Your task to perform on an android device: Add panasonic triple a to the cart on amazon Image 0: 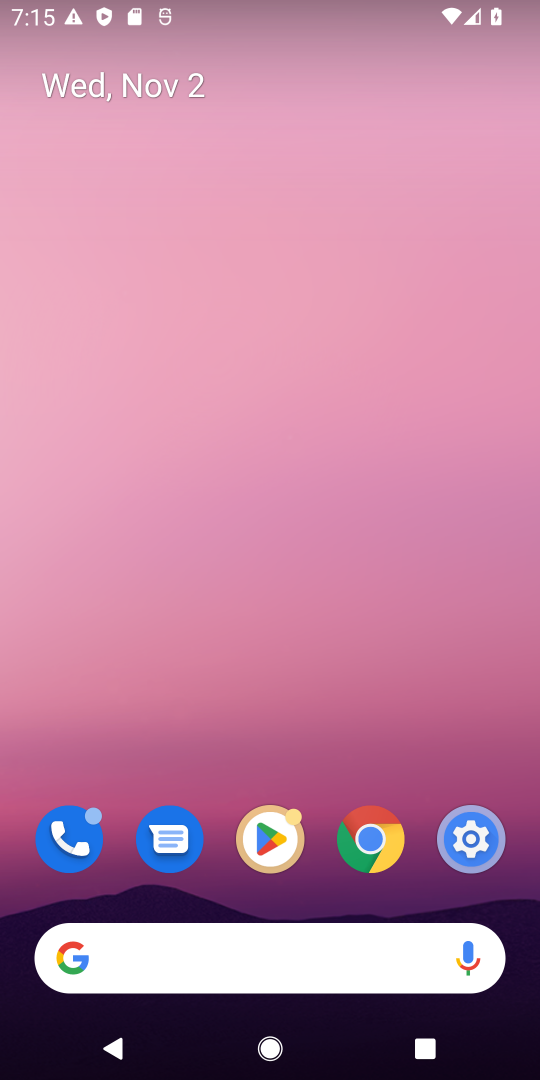
Step 0: click (370, 840)
Your task to perform on an android device: Add panasonic triple a to the cart on amazon Image 1: 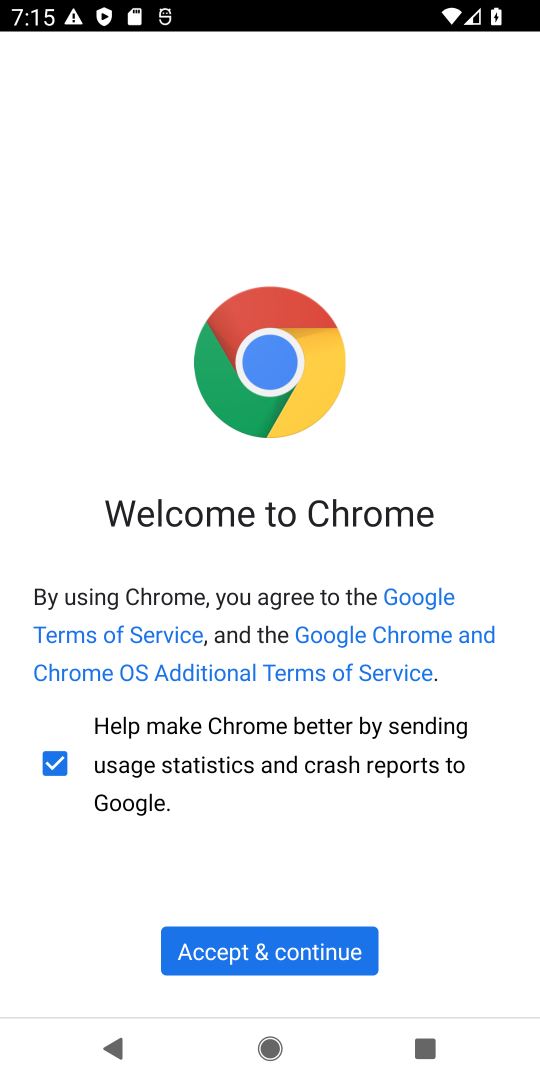
Step 1: click (258, 947)
Your task to perform on an android device: Add panasonic triple a to the cart on amazon Image 2: 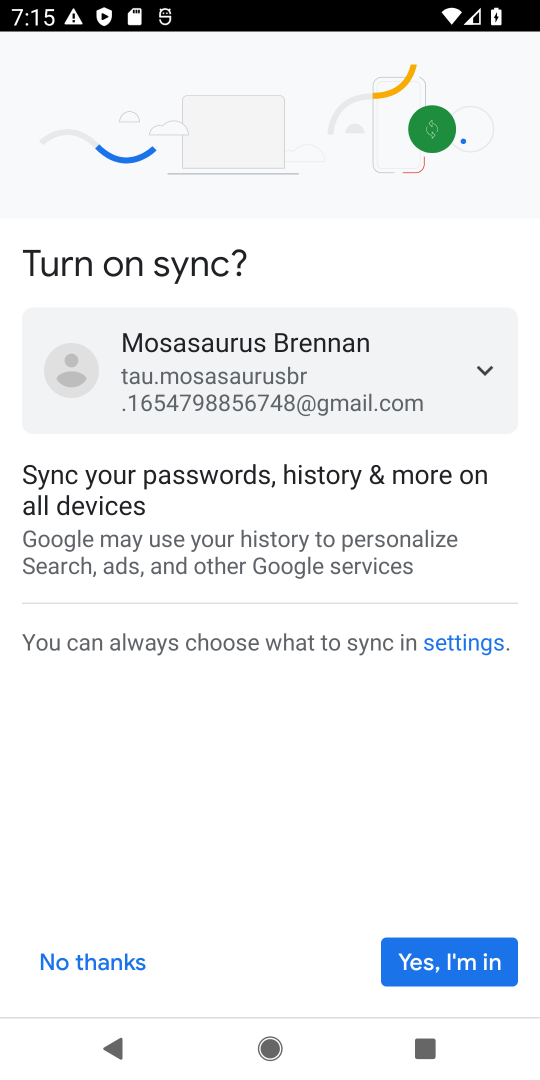
Step 2: click (427, 965)
Your task to perform on an android device: Add panasonic triple a to the cart on amazon Image 3: 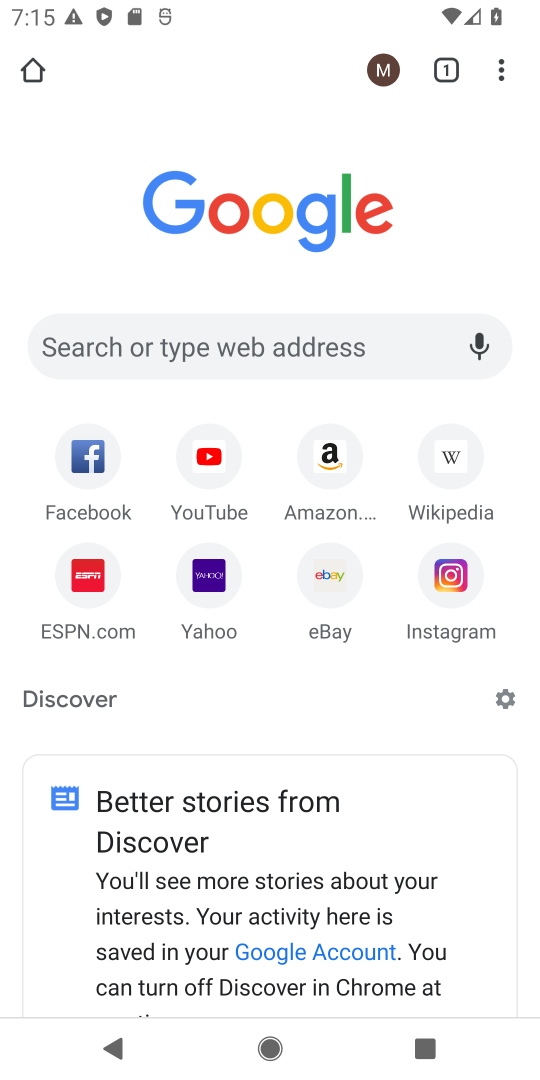
Step 3: click (298, 348)
Your task to perform on an android device: Add panasonic triple a to the cart on amazon Image 4: 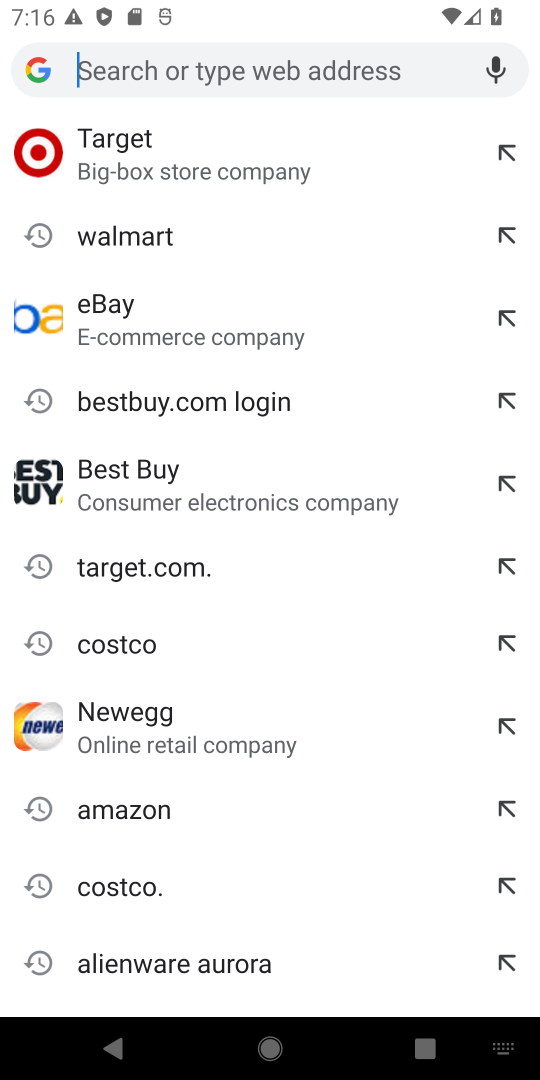
Step 4: type "amazon"
Your task to perform on an android device: Add panasonic triple a to the cart on amazon Image 5: 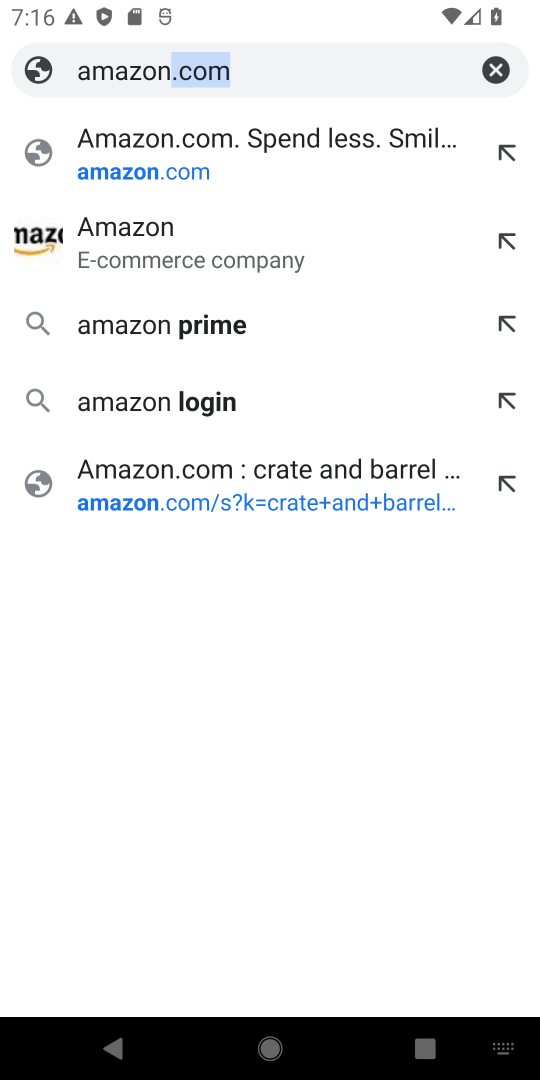
Step 5: click (237, 240)
Your task to perform on an android device: Add panasonic triple a to the cart on amazon Image 6: 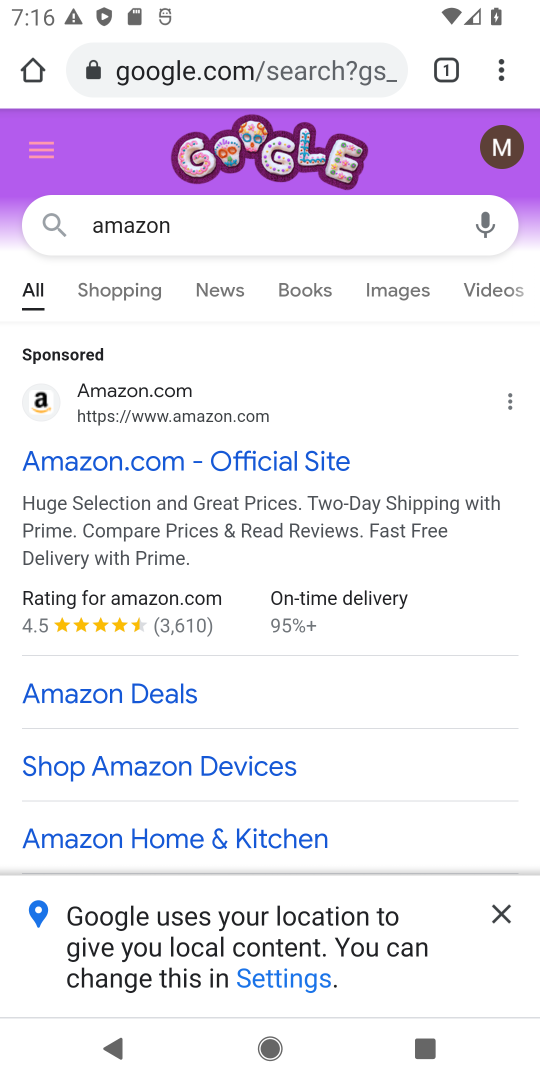
Step 6: drag from (312, 720) to (364, 322)
Your task to perform on an android device: Add panasonic triple a to the cart on amazon Image 7: 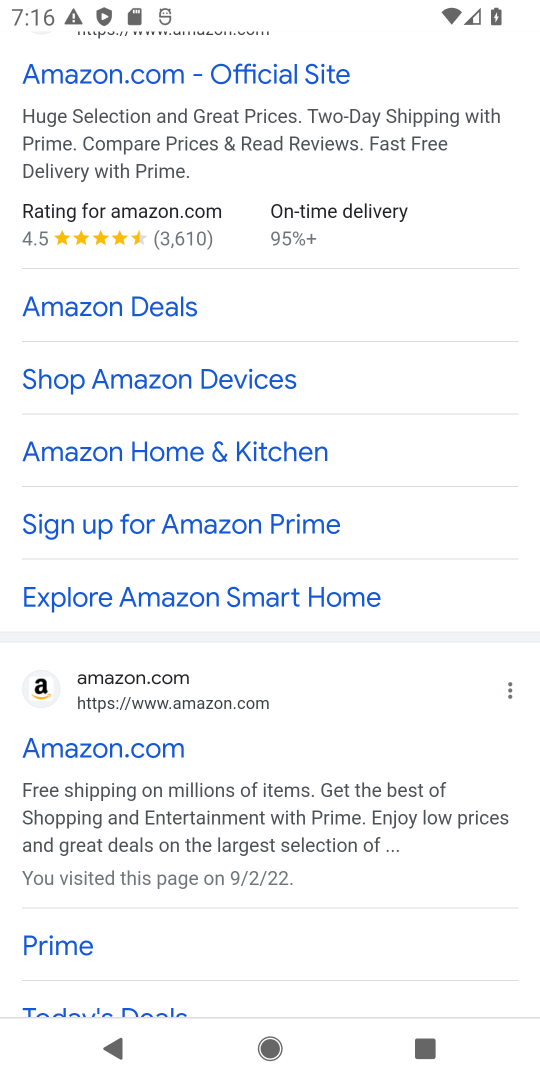
Step 7: click (214, 758)
Your task to perform on an android device: Add panasonic triple a to the cart on amazon Image 8: 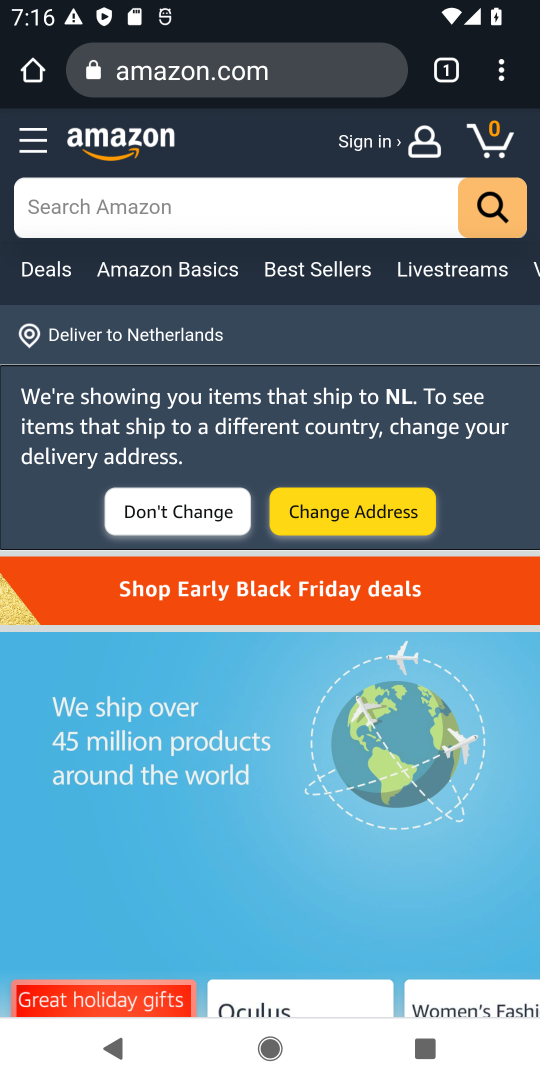
Step 8: click (239, 212)
Your task to perform on an android device: Add panasonic triple a to the cart on amazon Image 9: 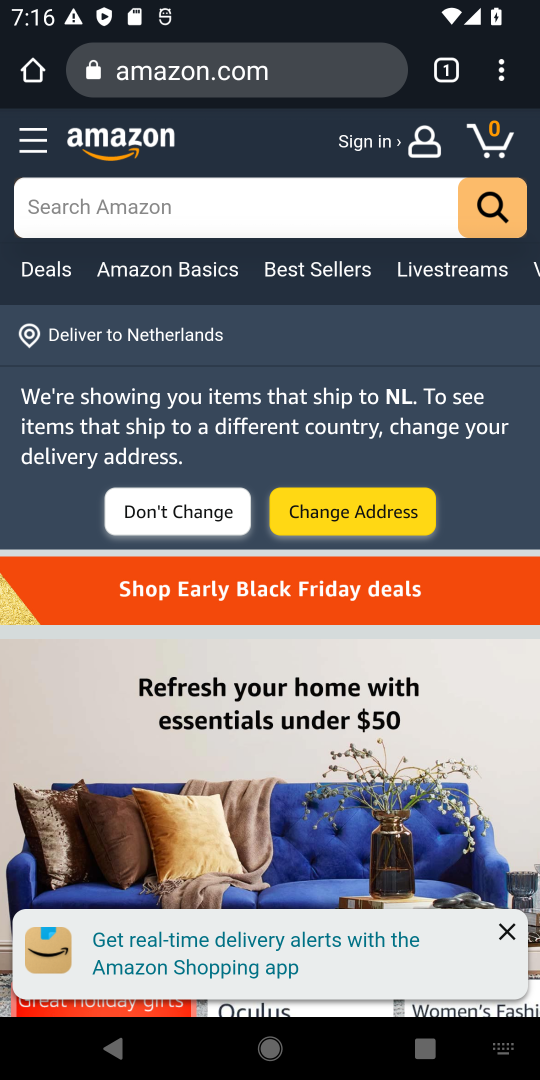
Step 9: type "panasonic triple a"
Your task to perform on an android device: Add panasonic triple a to the cart on amazon Image 10: 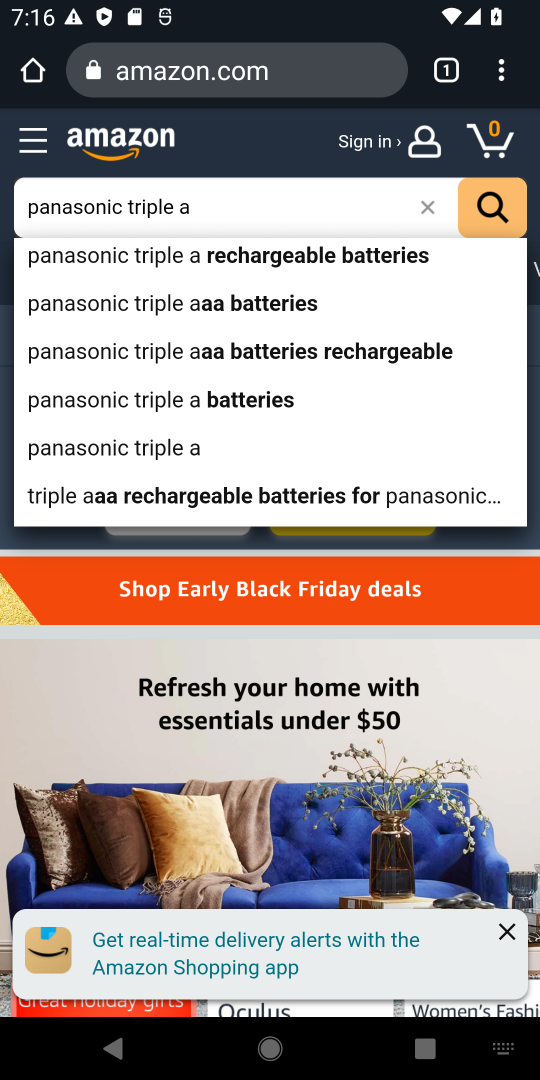
Step 10: click (486, 202)
Your task to perform on an android device: Add panasonic triple a to the cart on amazon Image 11: 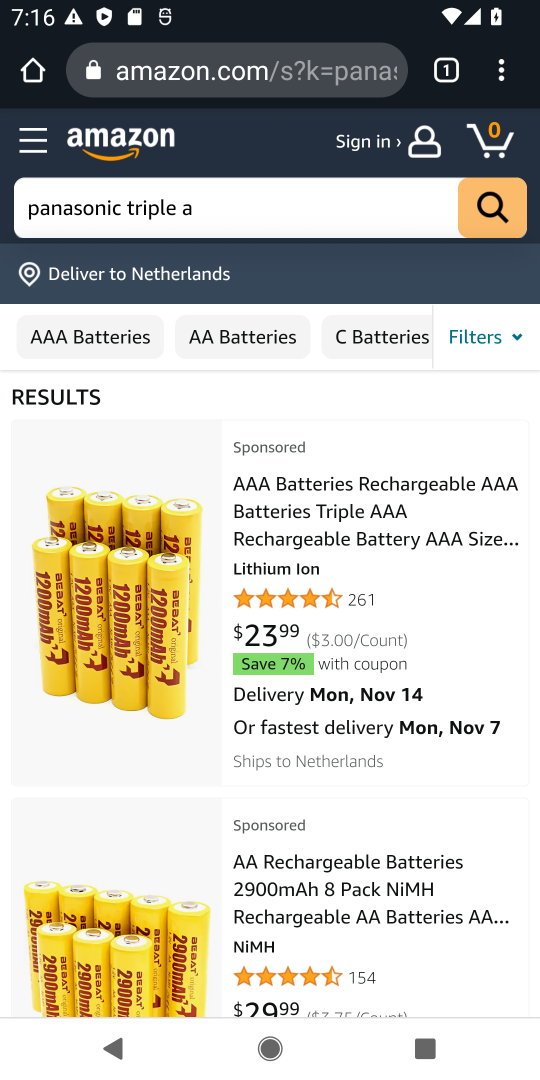
Step 11: drag from (335, 825) to (366, 435)
Your task to perform on an android device: Add panasonic triple a to the cart on amazon Image 12: 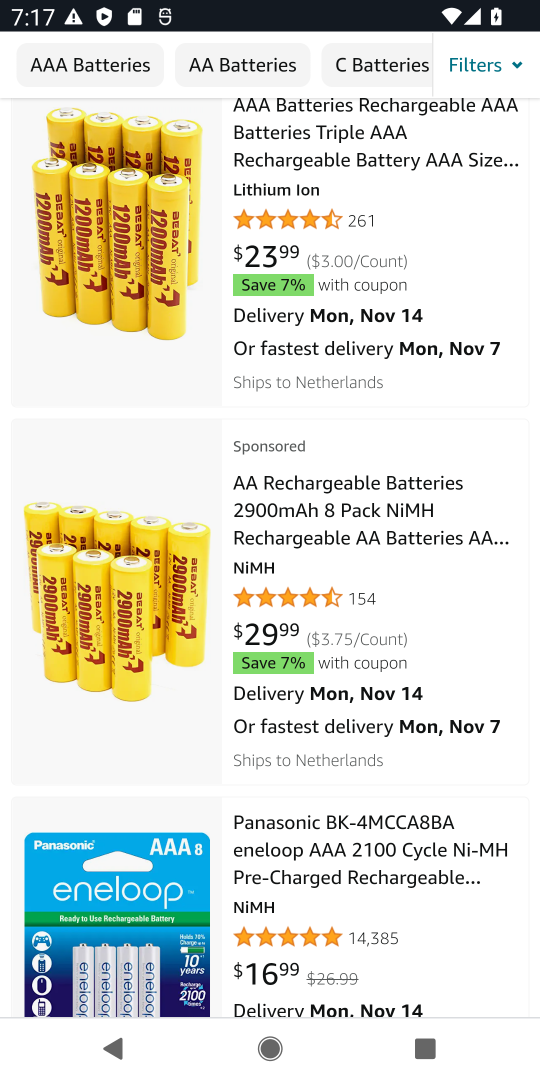
Step 12: drag from (400, 913) to (392, 591)
Your task to perform on an android device: Add panasonic triple a to the cart on amazon Image 13: 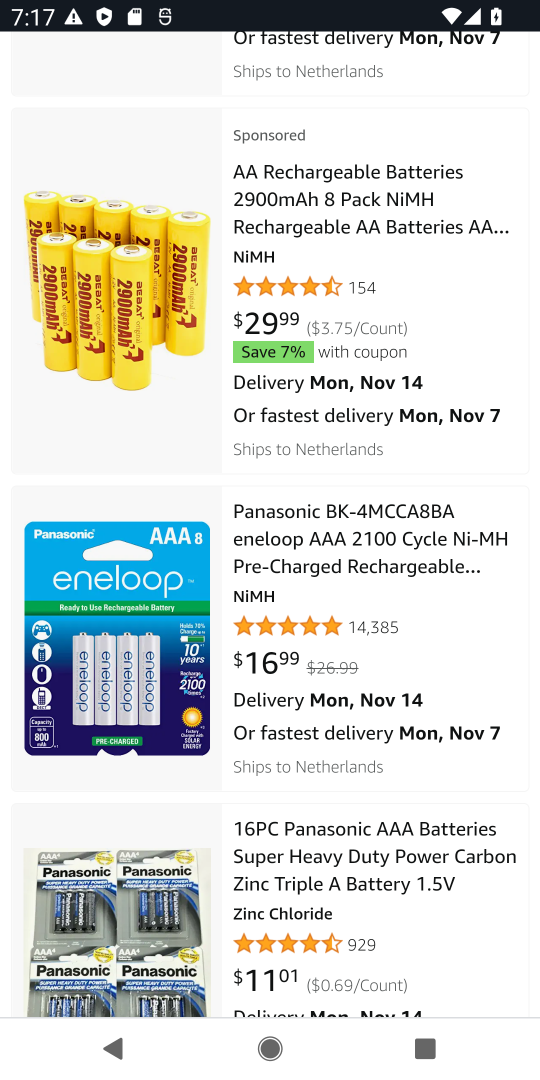
Step 13: click (377, 886)
Your task to perform on an android device: Add panasonic triple a to the cart on amazon Image 14: 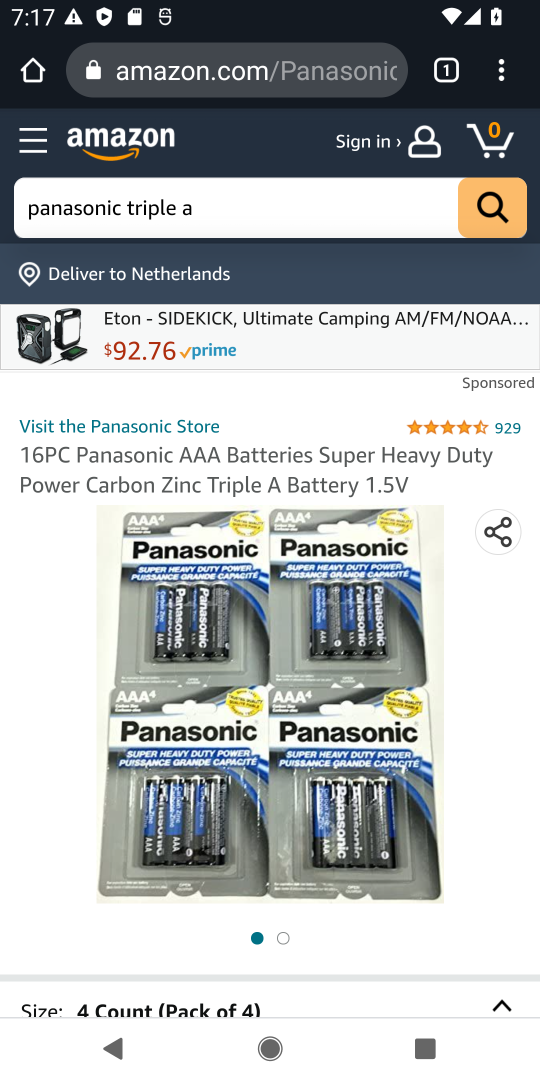
Step 14: drag from (396, 945) to (396, 359)
Your task to perform on an android device: Add panasonic triple a to the cart on amazon Image 15: 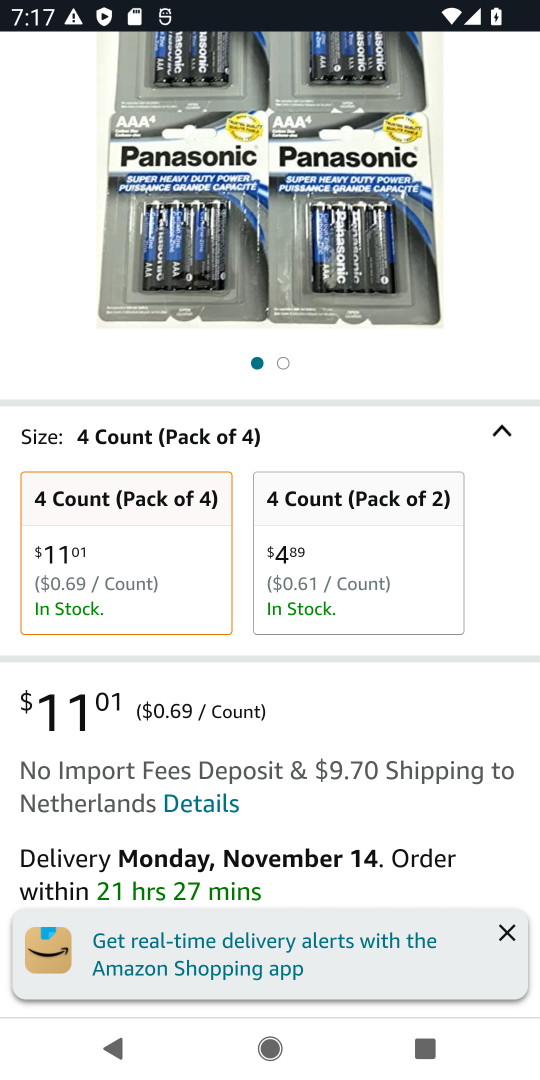
Step 15: drag from (356, 844) to (373, 290)
Your task to perform on an android device: Add panasonic triple a to the cart on amazon Image 16: 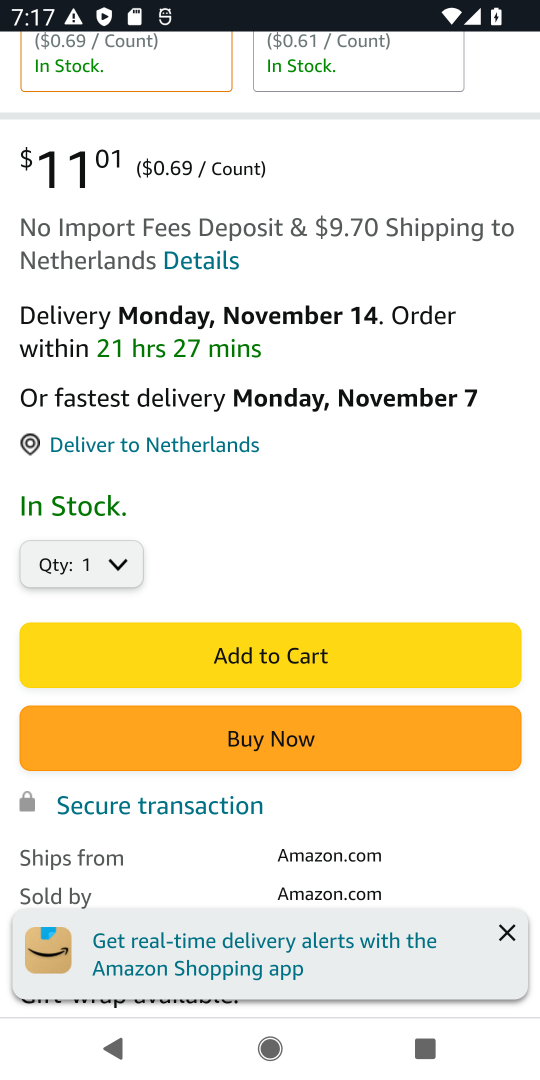
Step 16: click (265, 657)
Your task to perform on an android device: Add panasonic triple a to the cart on amazon Image 17: 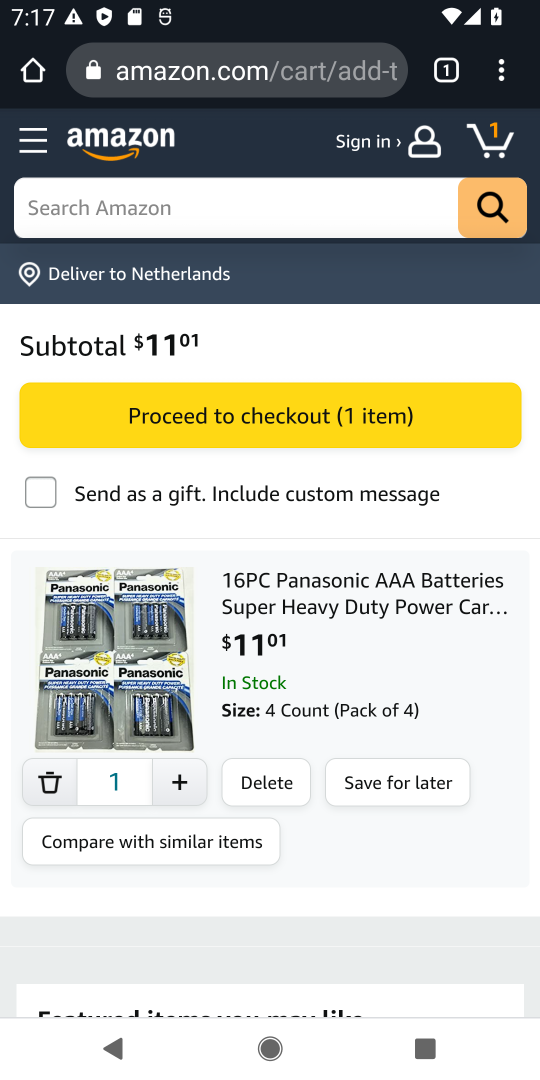
Step 17: task complete